Your task to perform on an android device: open app "HBO Max: Stream TV & Movies" (install if not already installed) Image 0: 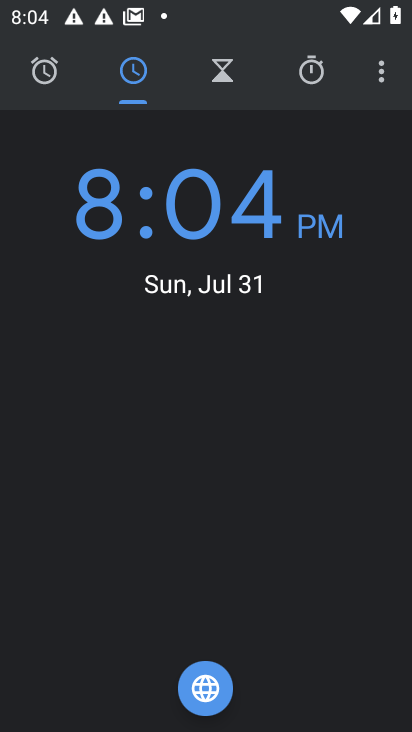
Step 0: press home button
Your task to perform on an android device: open app "HBO Max: Stream TV & Movies" (install if not already installed) Image 1: 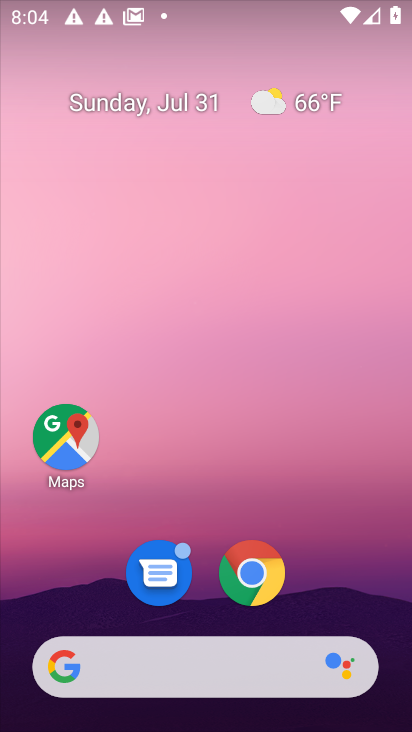
Step 1: drag from (215, 597) to (220, 209)
Your task to perform on an android device: open app "HBO Max: Stream TV & Movies" (install if not already installed) Image 2: 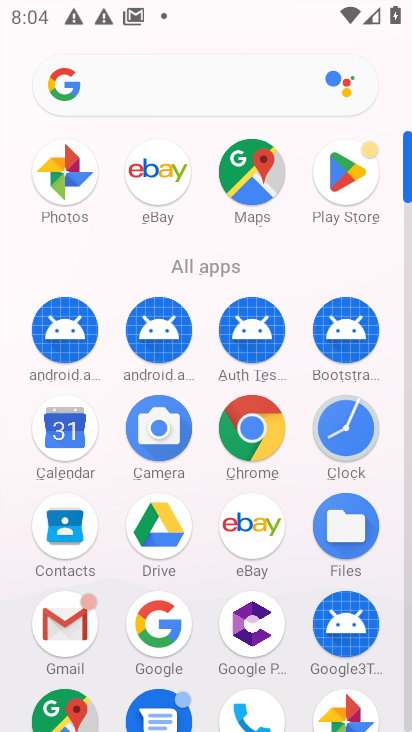
Step 2: drag from (219, 623) to (194, 374)
Your task to perform on an android device: open app "HBO Max: Stream TV & Movies" (install if not already installed) Image 3: 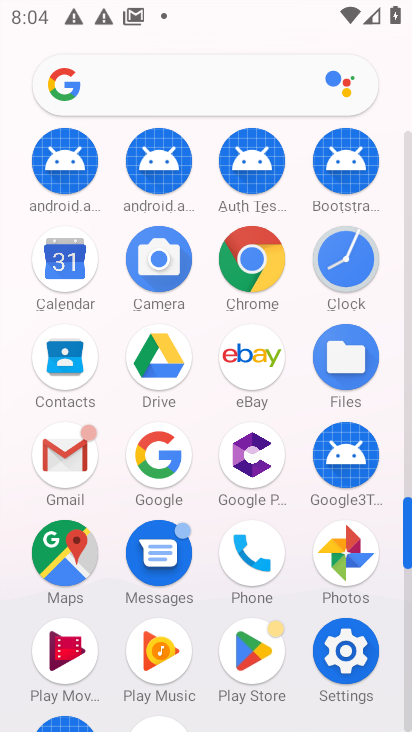
Step 3: click (256, 671)
Your task to perform on an android device: open app "HBO Max: Stream TV & Movies" (install if not already installed) Image 4: 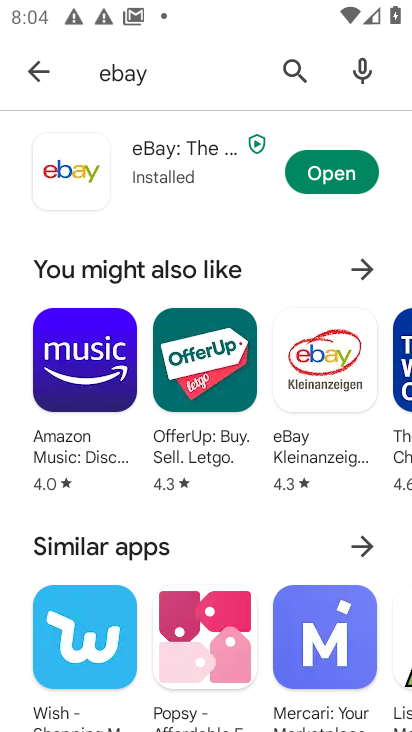
Step 4: click (151, 63)
Your task to perform on an android device: open app "HBO Max: Stream TV & Movies" (install if not already installed) Image 5: 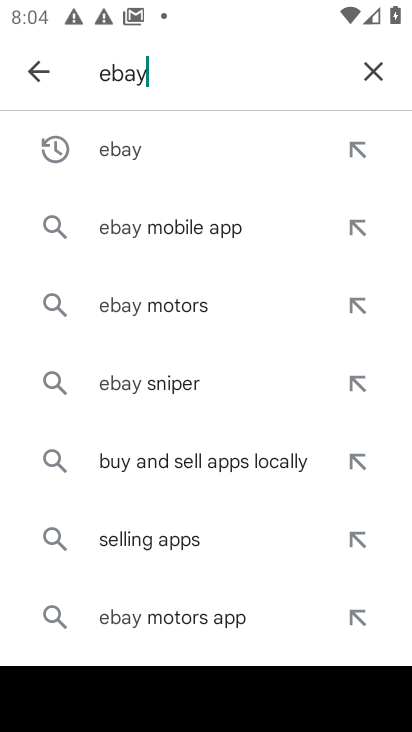
Step 5: click (366, 65)
Your task to perform on an android device: open app "HBO Max: Stream TV & Movies" (install if not already installed) Image 6: 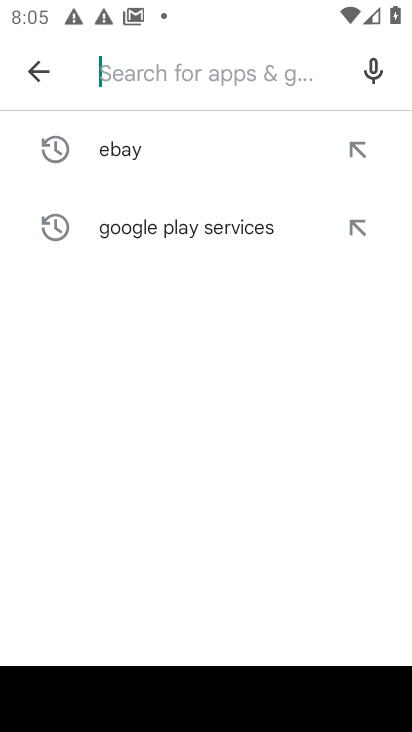
Step 6: type "HBO max"
Your task to perform on an android device: open app "HBO Max: Stream TV & Movies" (install if not already installed) Image 7: 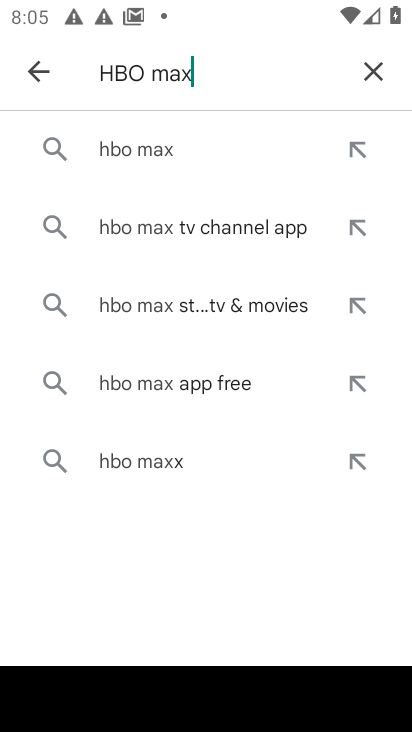
Step 7: click (112, 149)
Your task to perform on an android device: open app "HBO Max: Stream TV & Movies" (install if not already installed) Image 8: 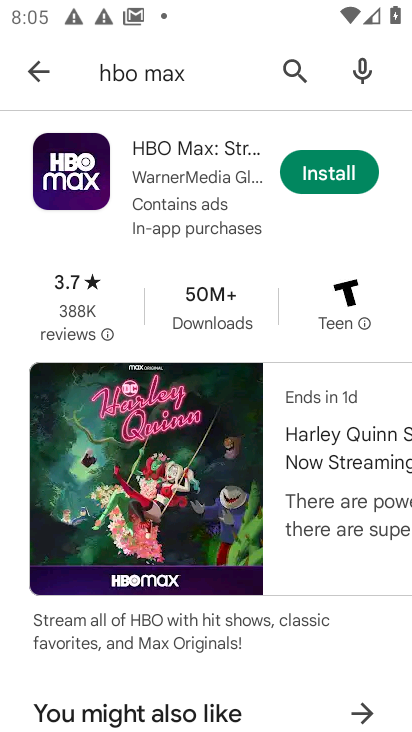
Step 8: click (343, 179)
Your task to perform on an android device: open app "HBO Max: Stream TV & Movies" (install if not already installed) Image 9: 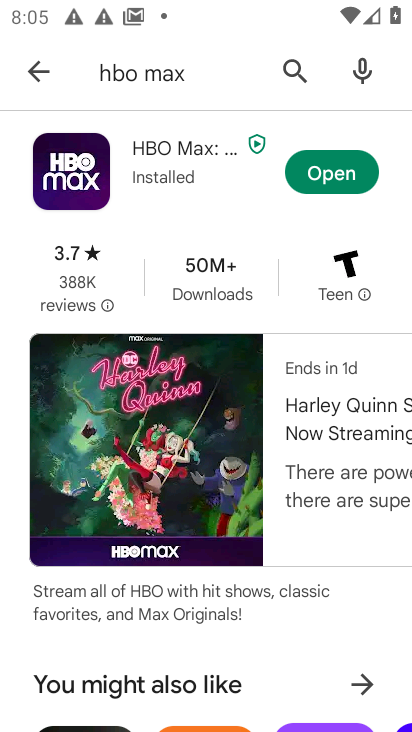
Step 9: click (322, 175)
Your task to perform on an android device: open app "HBO Max: Stream TV & Movies" (install if not already installed) Image 10: 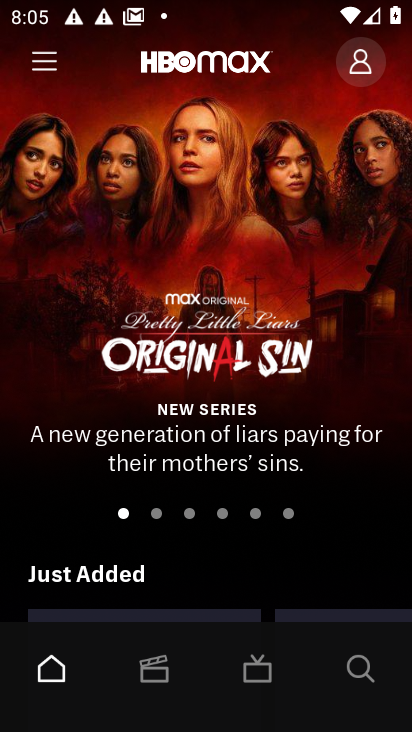
Step 10: task complete